Your task to perform on an android device: Go to settings Image 0: 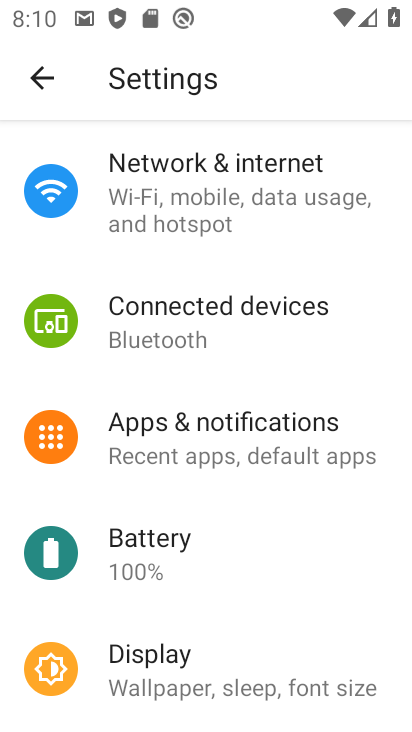
Step 0: task complete